Your task to perform on an android device: turn on bluetooth scan Image 0: 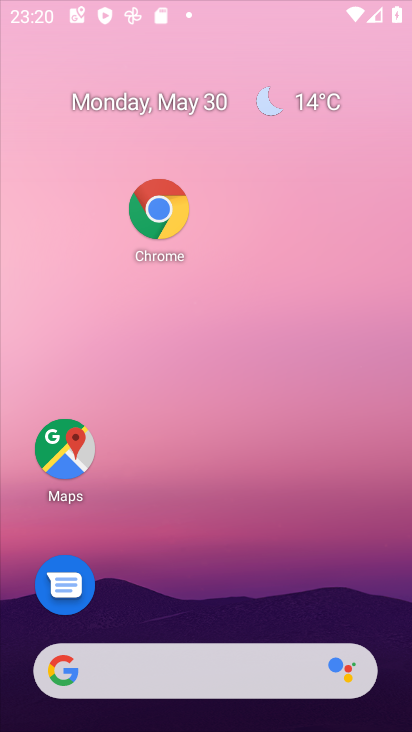
Step 0: click (270, 8)
Your task to perform on an android device: turn on bluetooth scan Image 1: 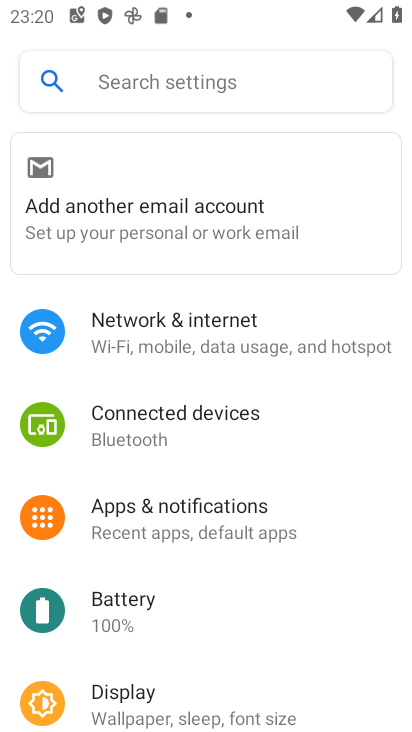
Step 1: drag from (220, 502) to (323, 92)
Your task to perform on an android device: turn on bluetooth scan Image 2: 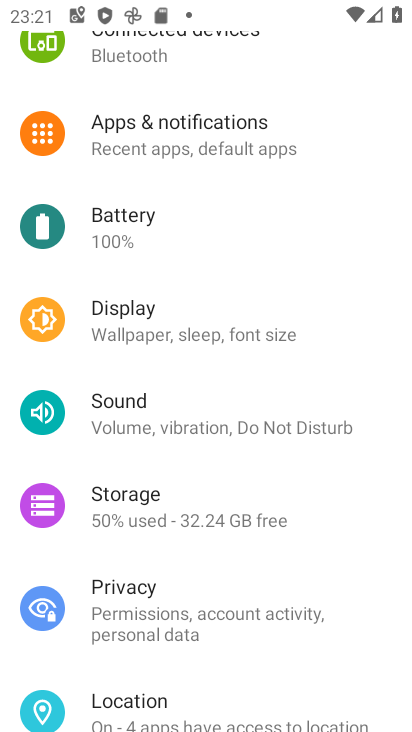
Step 2: click (204, 146)
Your task to perform on an android device: turn on bluetooth scan Image 3: 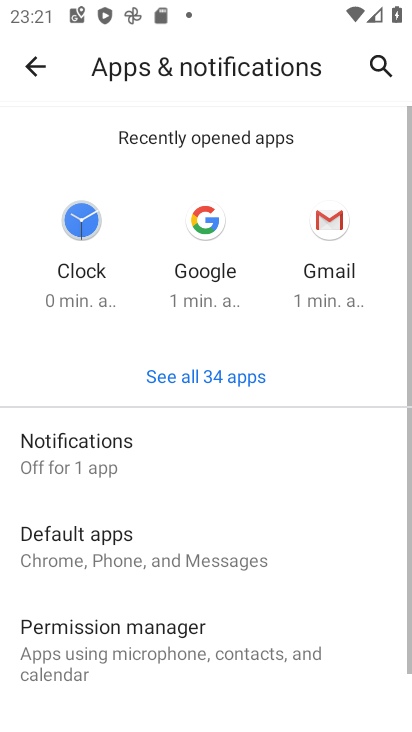
Step 3: click (39, 58)
Your task to perform on an android device: turn on bluetooth scan Image 4: 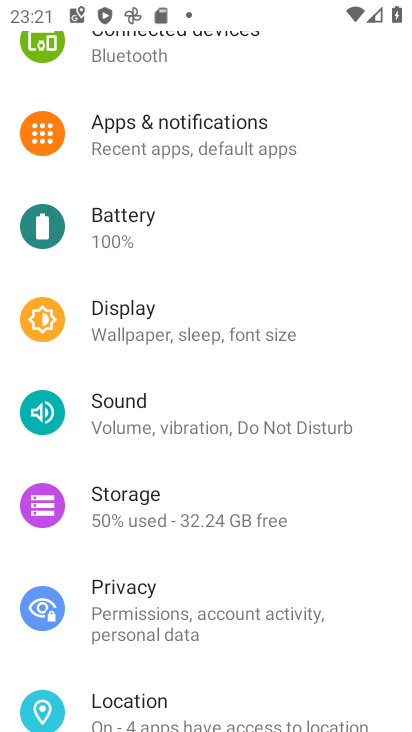
Step 4: click (168, 701)
Your task to perform on an android device: turn on bluetooth scan Image 5: 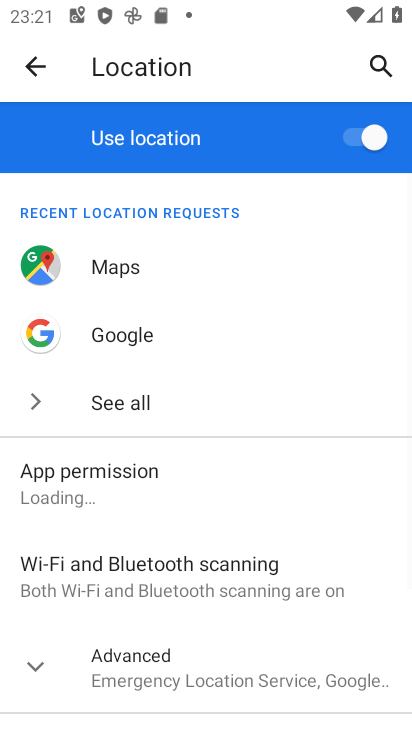
Step 5: click (177, 676)
Your task to perform on an android device: turn on bluetooth scan Image 6: 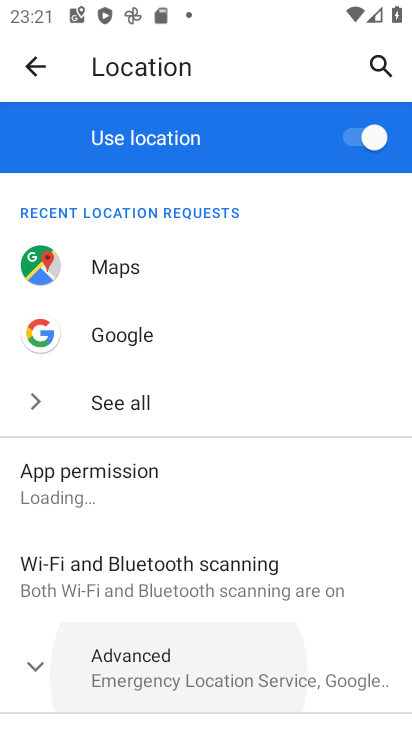
Step 6: drag from (164, 670) to (274, 129)
Your task to perform on an android device: turn on bluetooth scan Image 7: 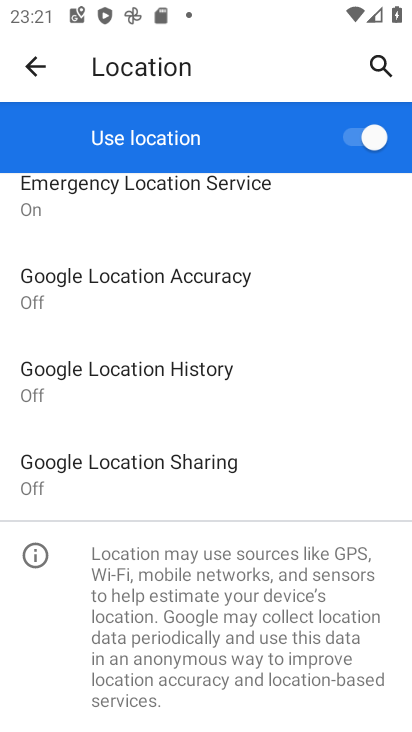
Step 7: drag from (147, 349) to (266, 725)
Your task to perform on an android device: turn on bluetooth scan Image 8: 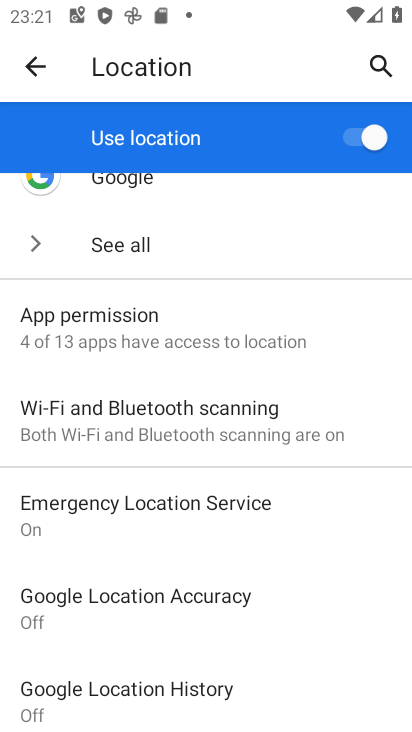
Step 8: click (181, 429)
Your task to perform on an android device: turn on bluetooth scan Image 9: 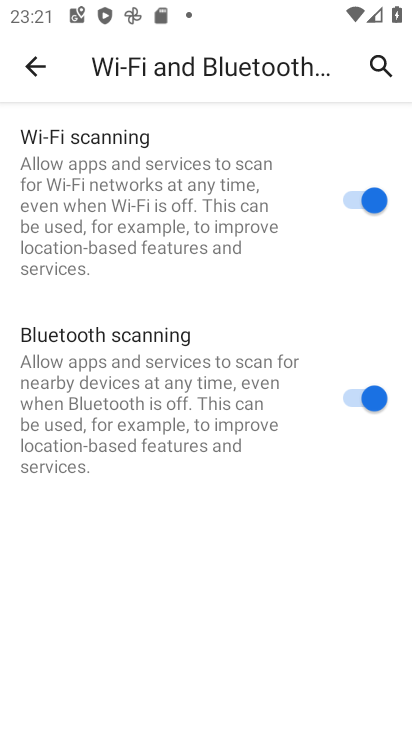
Step 9: task complete